Your task to perform on an android device: View the shopping cart on amazon. Search for logitech g910 on amazon, select the first entry, and add it to the cart. Image 0: 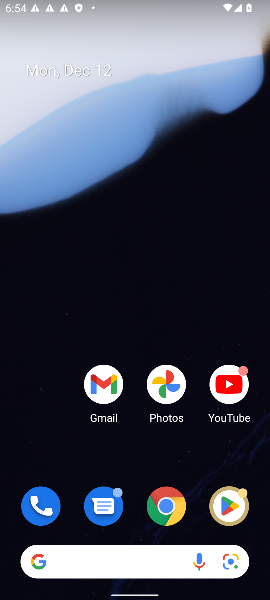
Step 0: click (140, 566)
Your task to perform on an android device: View the shopping cart on amazon. Search for logitech g910 on amazon, select the first entry, and add it to the cart. Image 1: 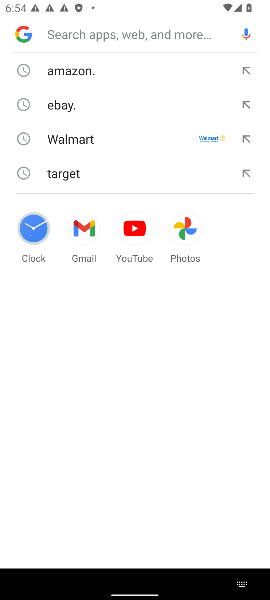
Step 1: click (104, 75)
Your task to perform on an android device: View the shopping cart on amazon. Search for logitech g910 on amazon, select the first entry, and add it to the cart. Image 2: 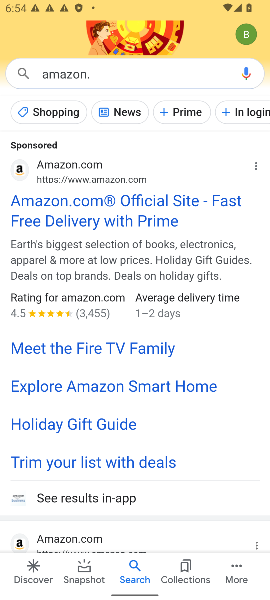
Step 2: click (150, 219)
Your task to perform on an android device: View the shopping cart on amazon. Search for logitech g910 on amazon, select the first entry, and add it to the cart. Image 3: 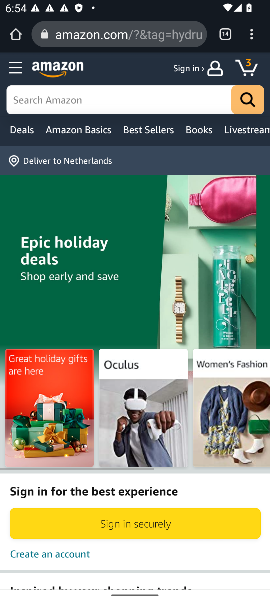
Step 3: click (59, 101)
Your task to perform on an android device: View the shopping cart on amazon. Search for logitech g910 on amazon, select the first entry, and add it to the cart. Image 4: 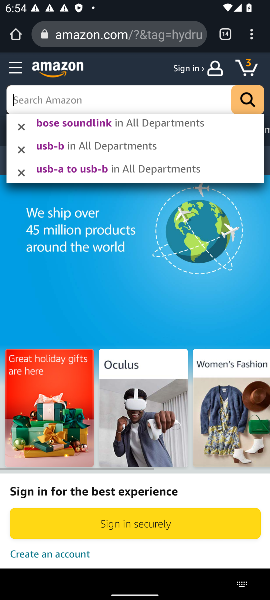
Step 4: type "logitech g910"
Your task to perform on an android device: View the shopping cart on amazon. Search for logitech g910 on amazon, select the first entry, and add it to the cart. Image 5: 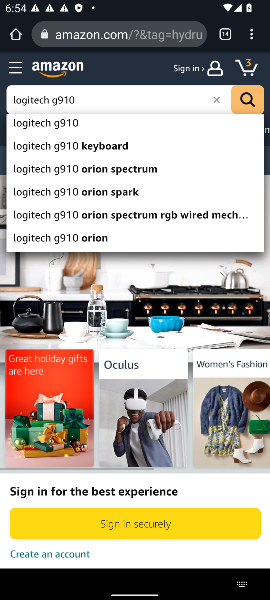
Step 5: click (244, 98)
Your task to perform on an android device: View the shopping cart on amazon. Search for logitech g910 on amazon, select the first entry, and add it to the cart. Image 6: 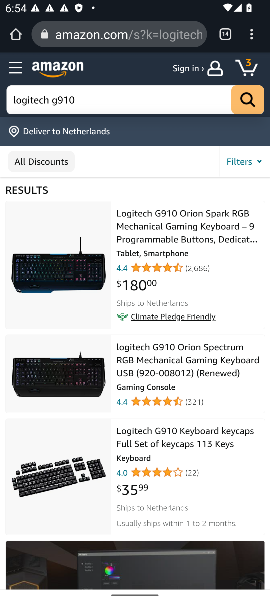
Step 6: click (234, 239)
Your task to perform on an android device: View the shopping cart on amazon. Search for logitech g910 on amazon, select the first entry, and add it to the cart. Image 7: 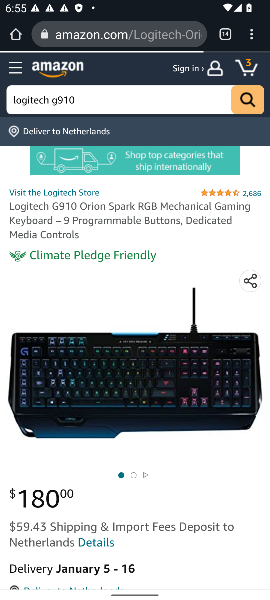
Step 7: drag from (199, 491) to (187, 280)
Your task to perform on an android device: View the shopping cart on amazon. Search for logitech g910 on amazon, select the first entry, and add it to the cart. Image 8: 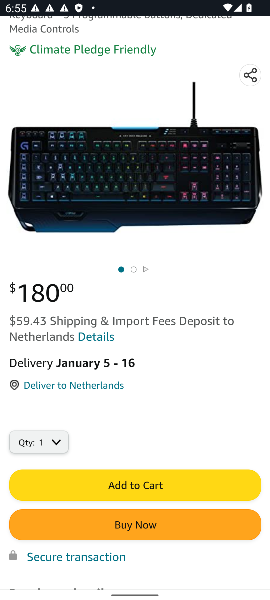
Step 8: click (201, 474)
Your task to perform on an android device: View the shopping cart on amazon. Search for logitech g910 on amazon, select the first entry, and add it to the cart. Image 9: 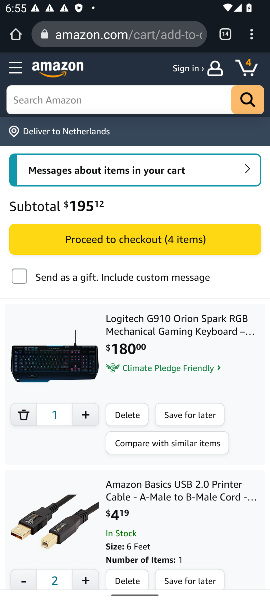
Step 9: task complete